Your task to perform on an android device: turn off airplane mode Image 0: 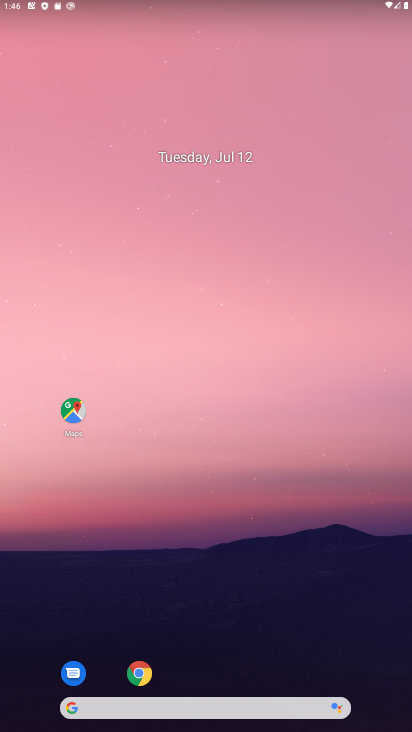
Step 0: drag from (191, 701) to (216, 465)
Your task to perform on an android device: turn off airplane mode Image 1: 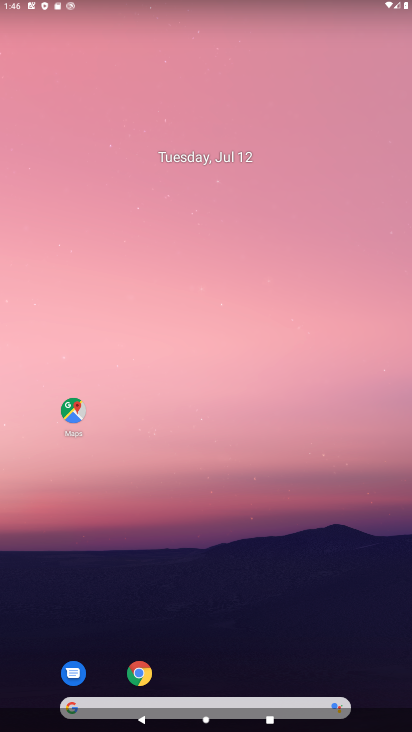
Step 1: drag from (250, 702) to (274, 222)
Your task to perform on an android device: turn off airplane mode Image 2: 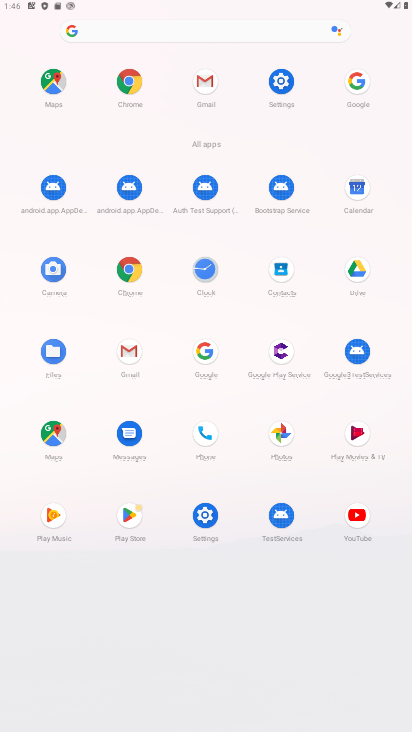
Step 2: click (284, 87)
Your task to perform on an android device: turn off airplane mode Image 3: 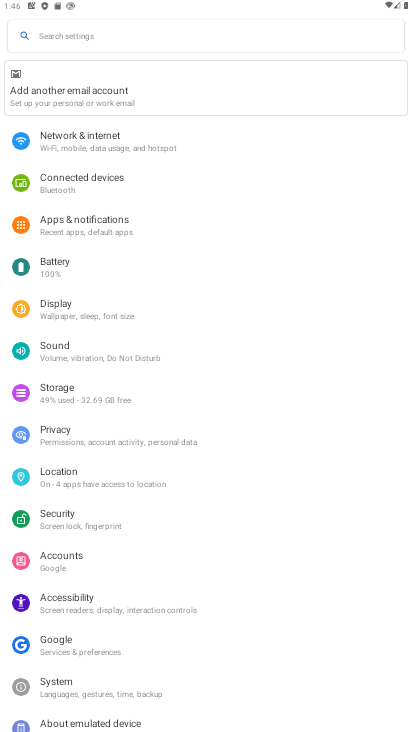
Step 3: click (63, 143)
Your task to perform on an android device: turn off airplane mode Image 4: 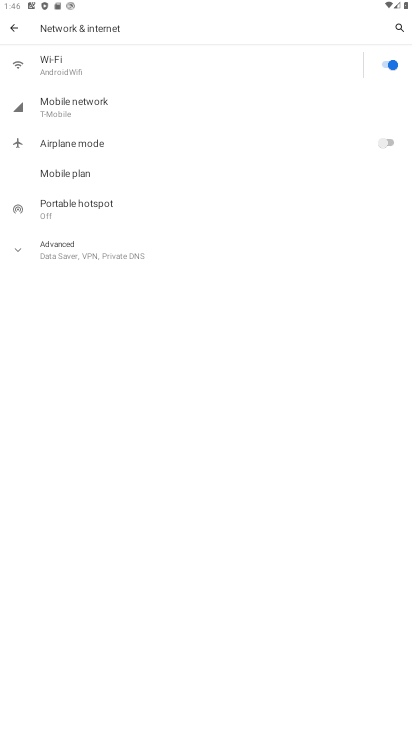
Step 4: task complete